Your task to perform on an android device: empty trash in the gmail app Image 0: 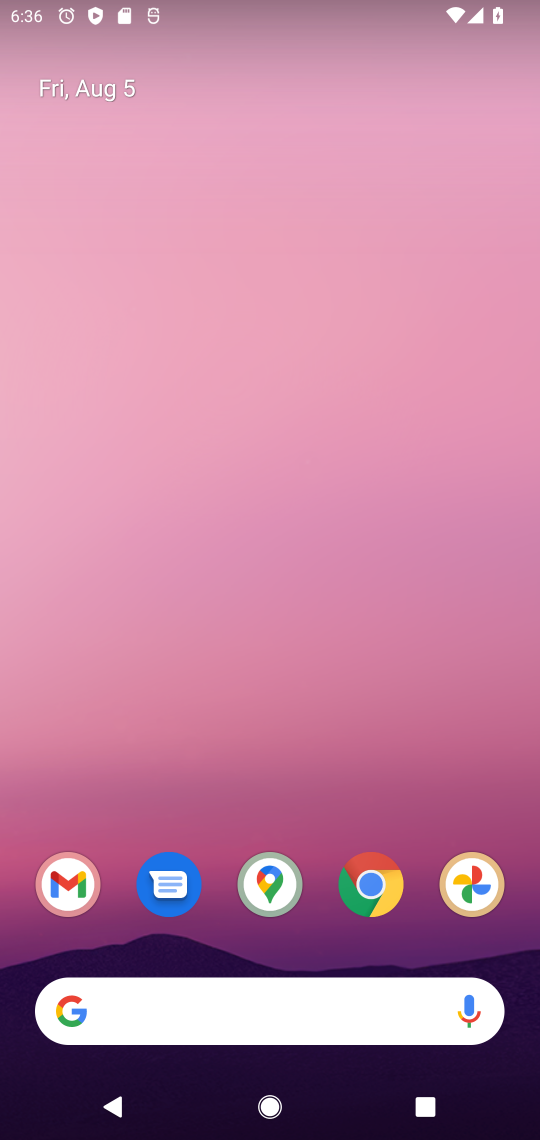
Step 0: click (69, 892)
Your task to perform on an android device: empty trash in the gmail app Image 1: 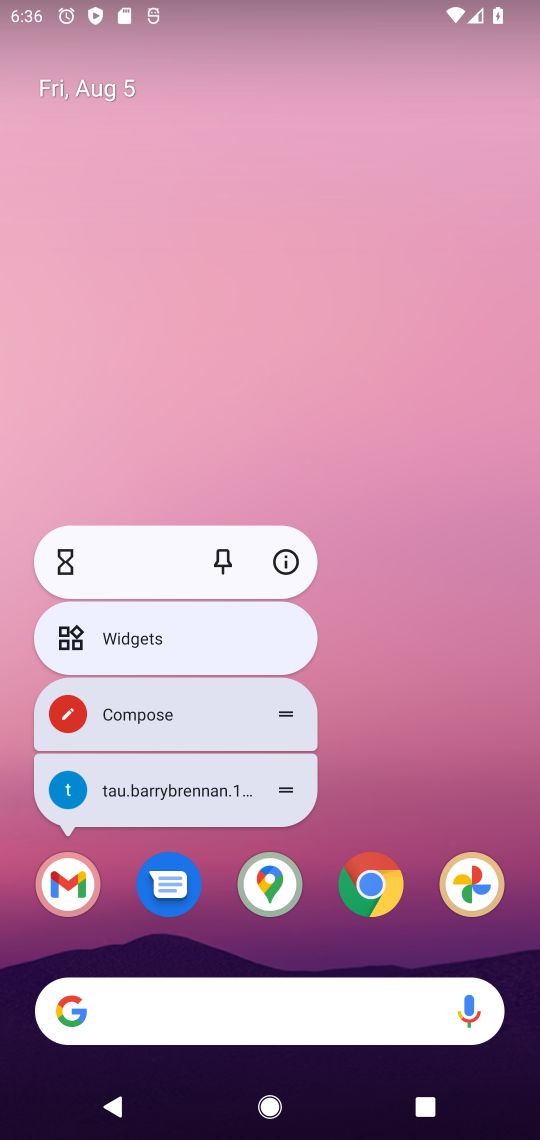
Step 1: click (74, 880)
Your task to perform on an android device: empty trash in the gmail app Image 2: 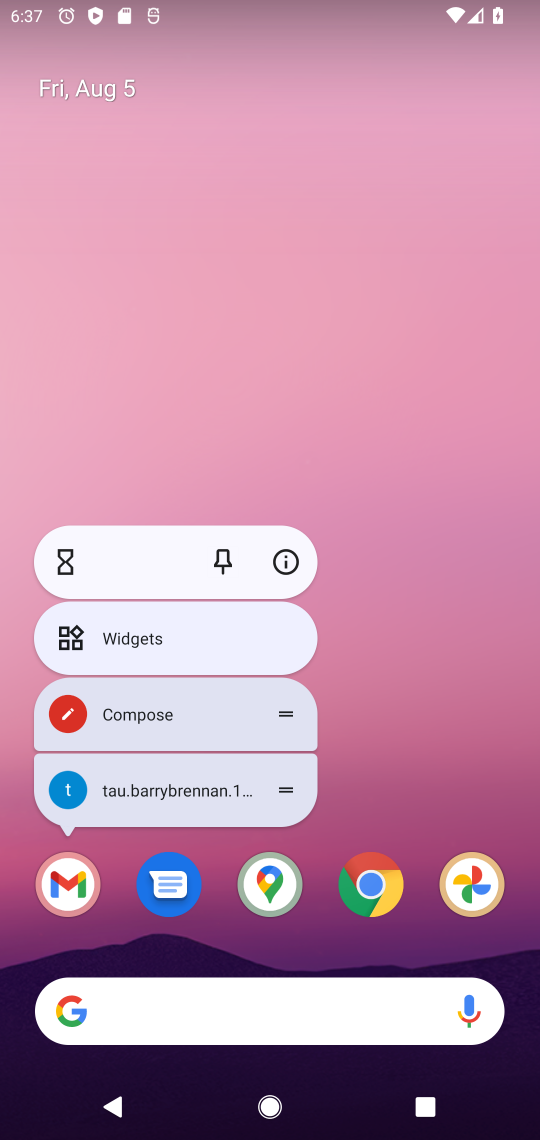
Step 2: click (425, 687)
Your task to perform on an android device: empty trash in the gmail app Image 3: 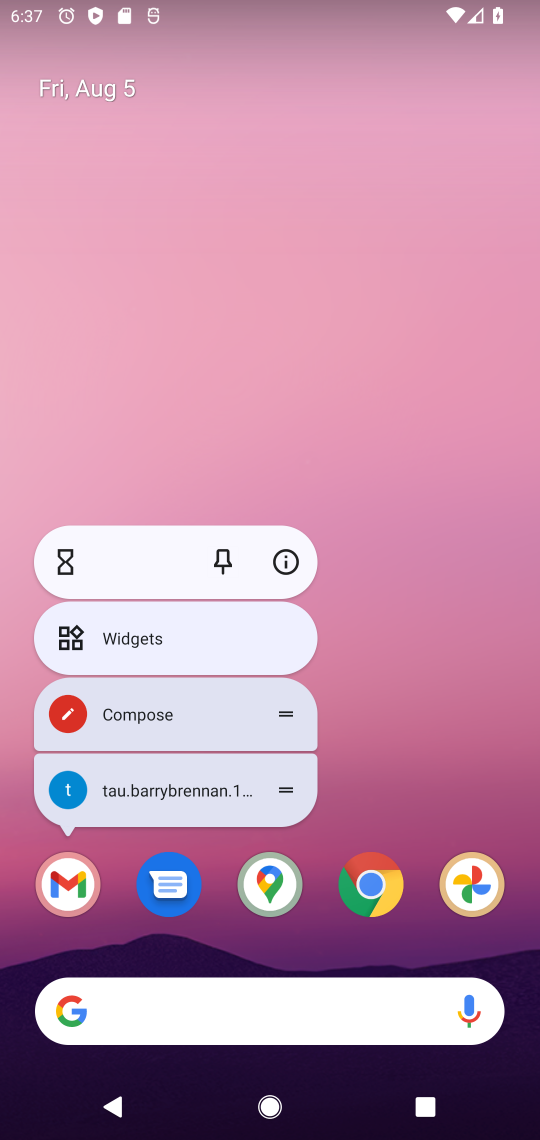
Step 3: drag from (403, 585) to (386, 74)
Your task to perform on an android device: empty trash in the gmail app Image 4: 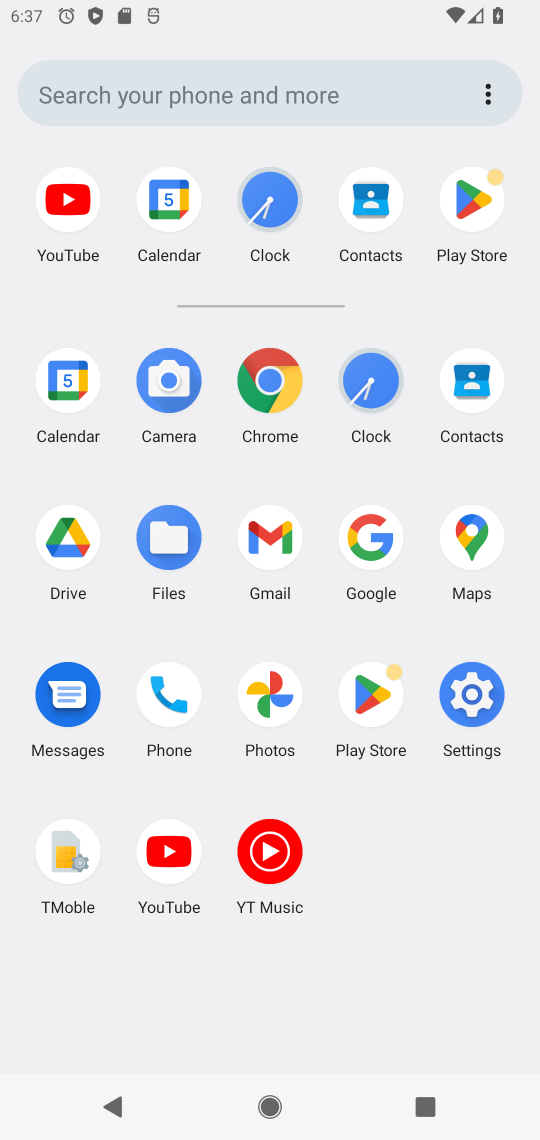
Step 4: click (277, 535)
Your task to perform on an android device: empty trash in the gmail app Image 5: 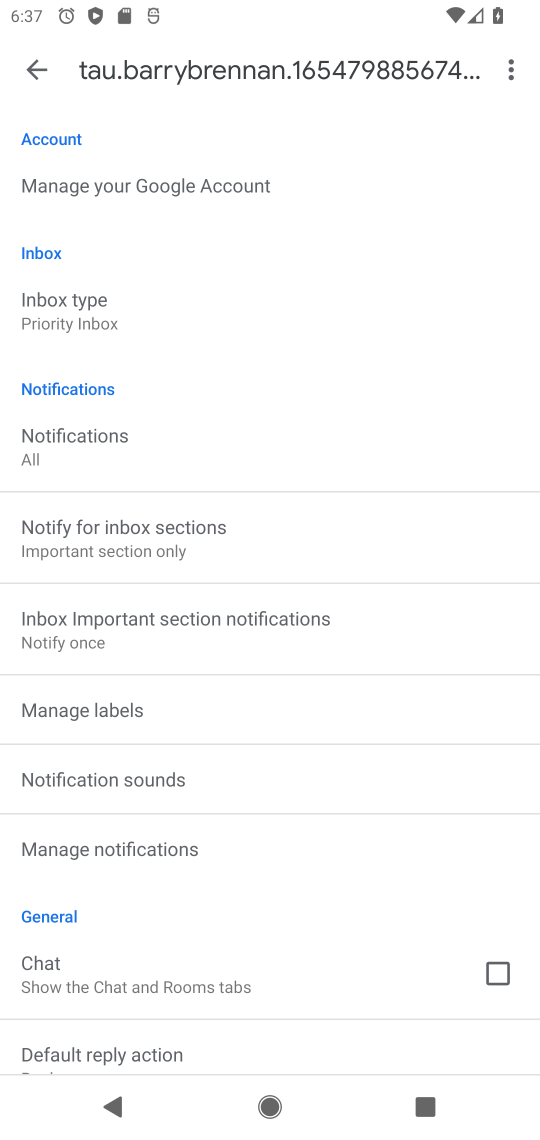
Step 5: click (36, 68)
Your task to perform on an android device: empty trash in the gmail app Image 6: 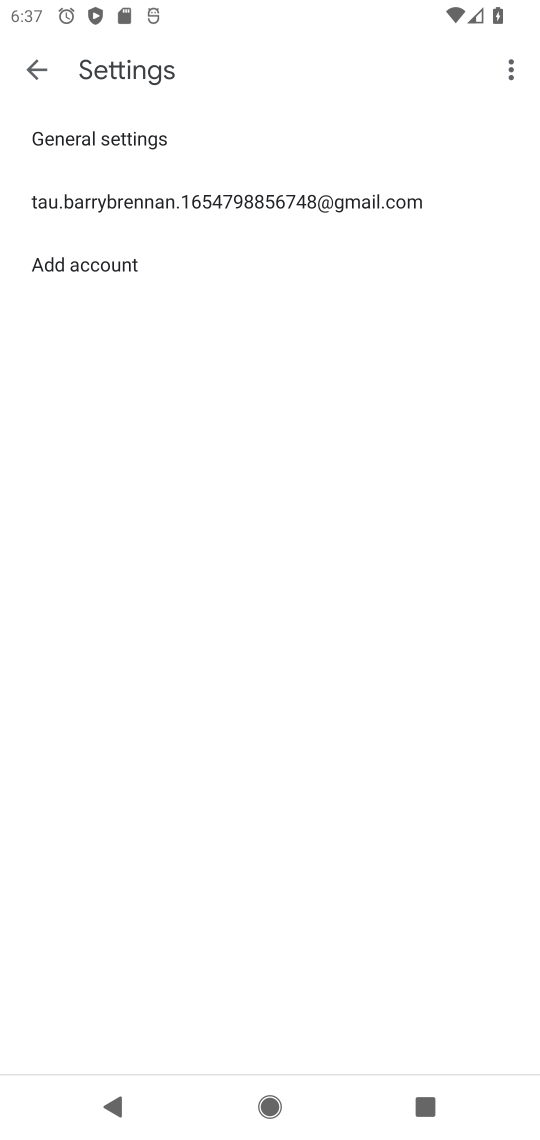
Step 6: click (44, 72)
Your task to perform on an android device: empty trash in the gmail app Image 7: 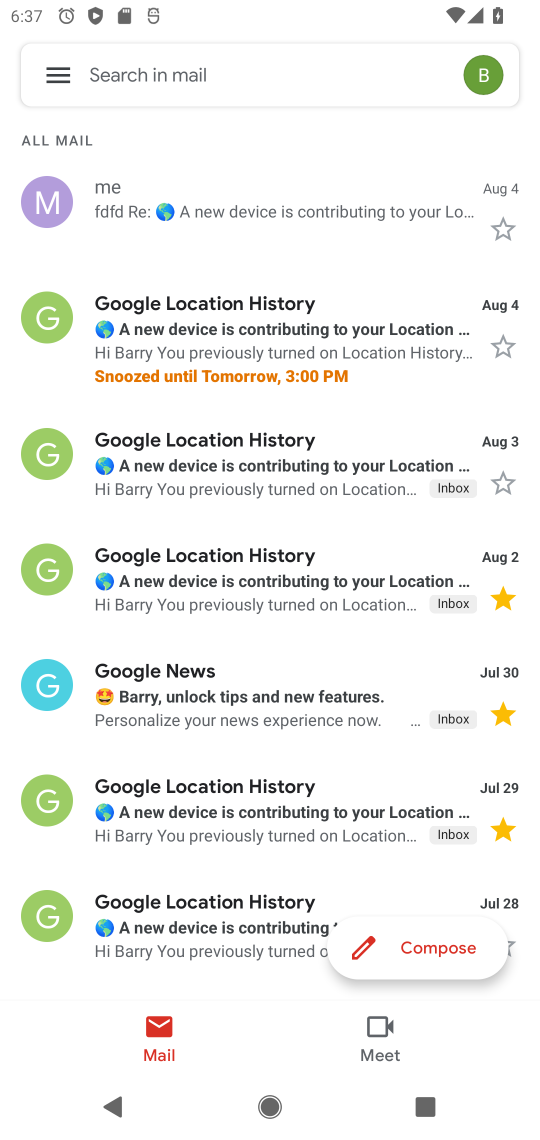
Step 7: click (50, 83)
Your task to perform on an android device: empty trash in the gmail app Image 8: 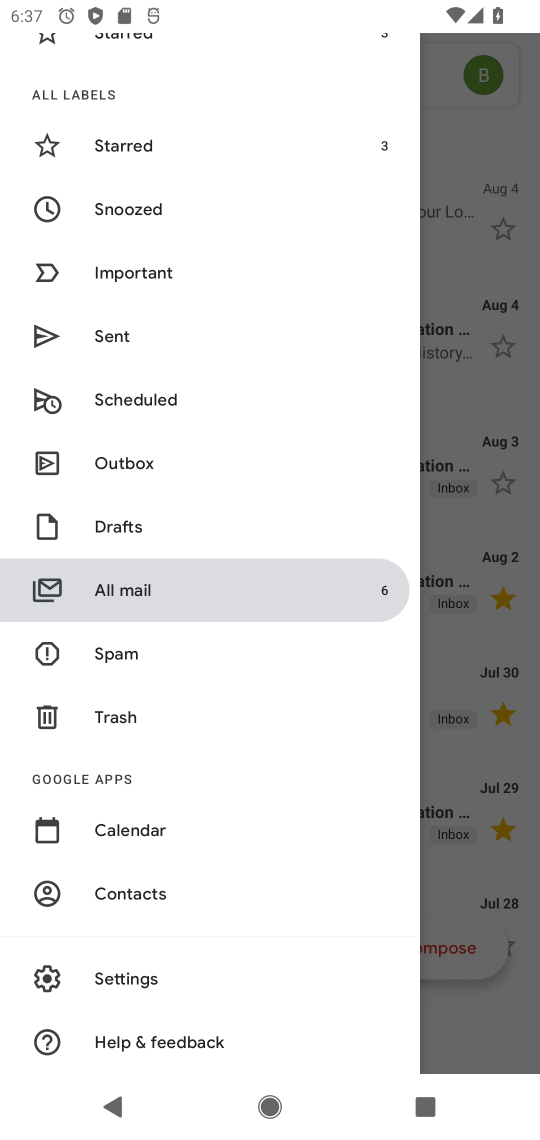
Step 8: click (123, 709)
Your task to perform on an android device: empty trash in the gmail app Image 9: 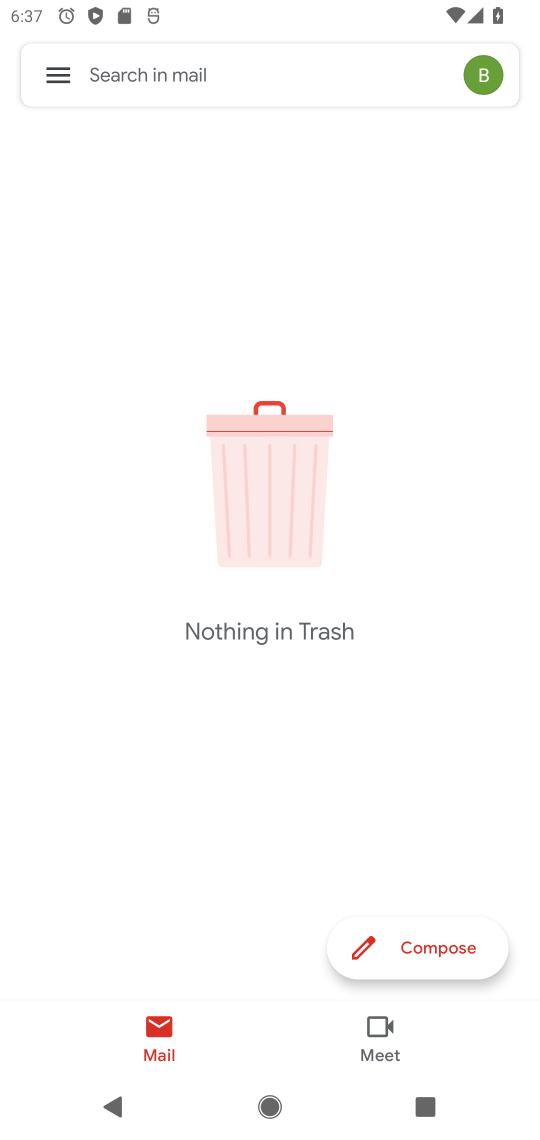
Step 9: task complete